Your task to perform on an android device: What's the weather? Image 0: 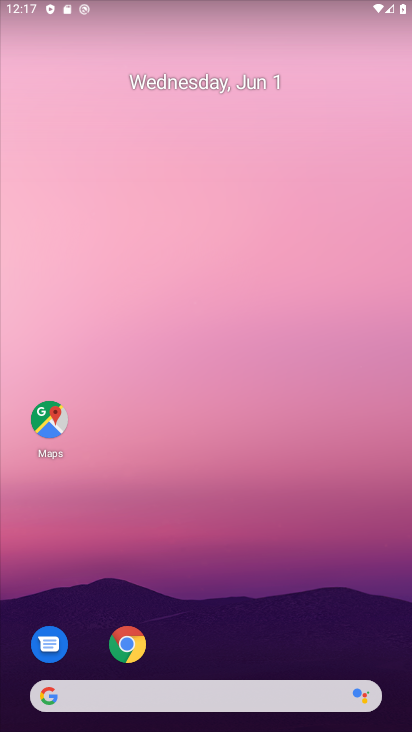
Step 0: press home button
Your task to perform on an android device: What's the weather? Image 1: 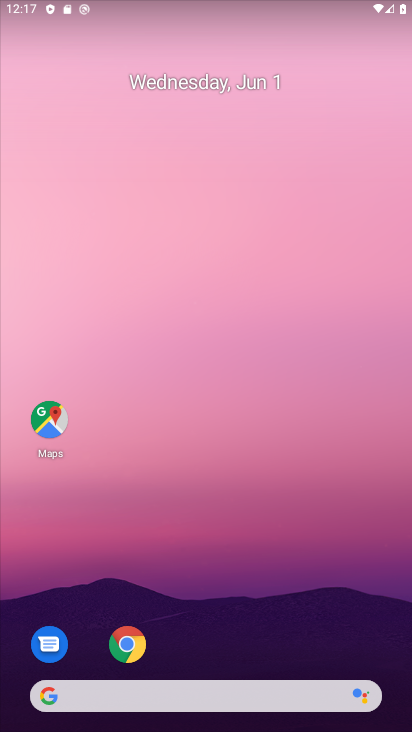
Step 1: click (134, 634)
Your task to perform on an android device: What's the weather? Image 2: 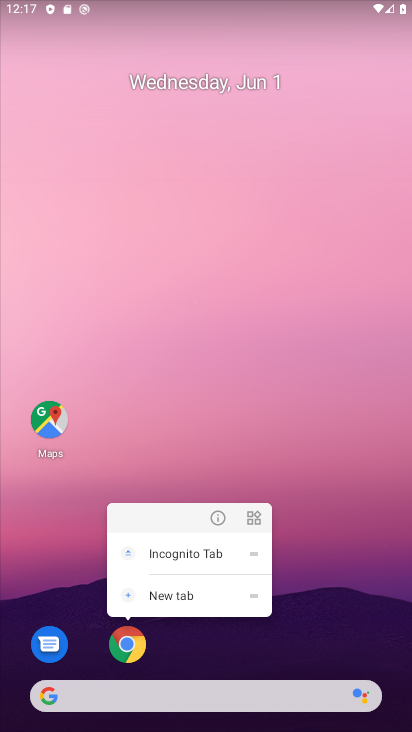
Step 2: click (134, 634)
Your task to perform on an android device: What's the weather? Image 3: 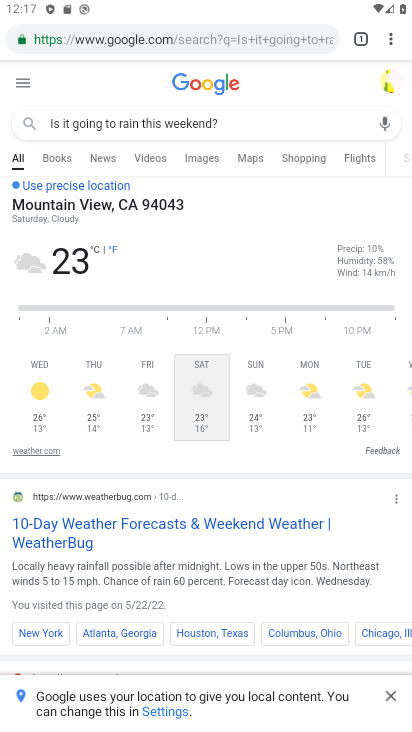
Step 3: click (176, 42)
Your task to perform on an android device: What's the weather? Image 4: 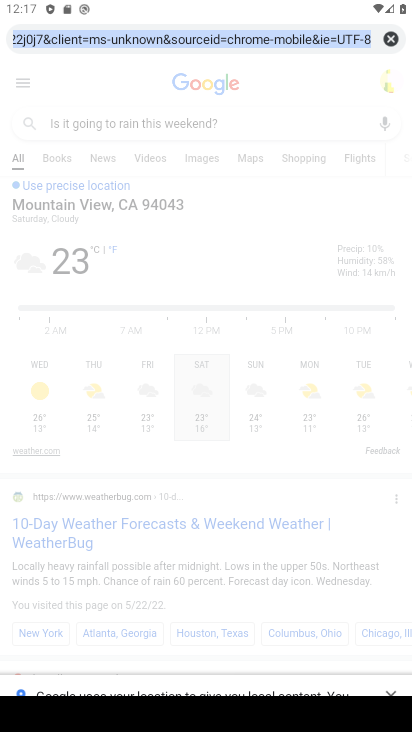
Step 4: click (386, 37)
Your task to perform on an android device: What's the weather? Image 5: 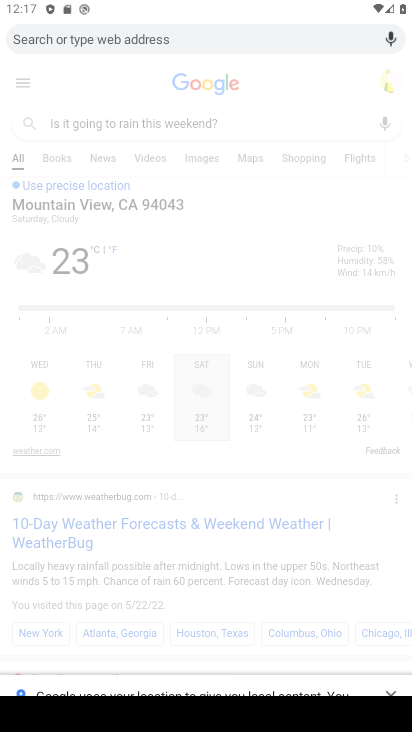
Step 5: type "What's the weather?"
Your task to perform on an android device: What's the weather? Image 6: 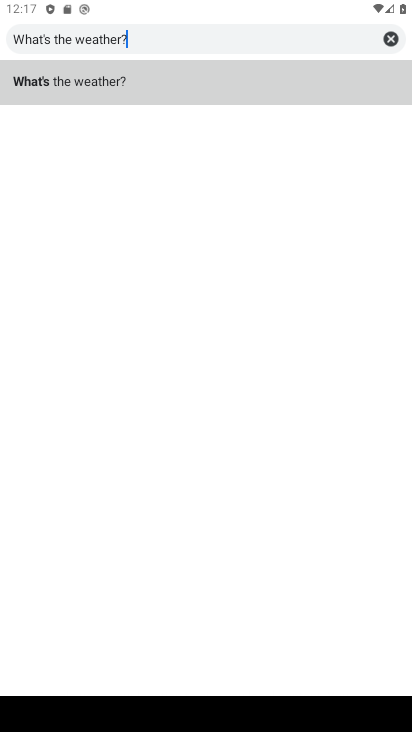
Step 6: type ""
Your task to perform on an android device: What's the weather? Image 7: 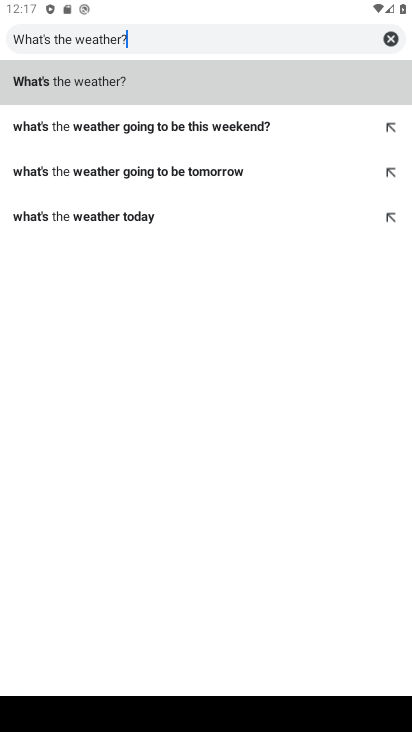
Step 7: click (96, 72)
Your task to perform on an android device: What's the weather? Image 8: 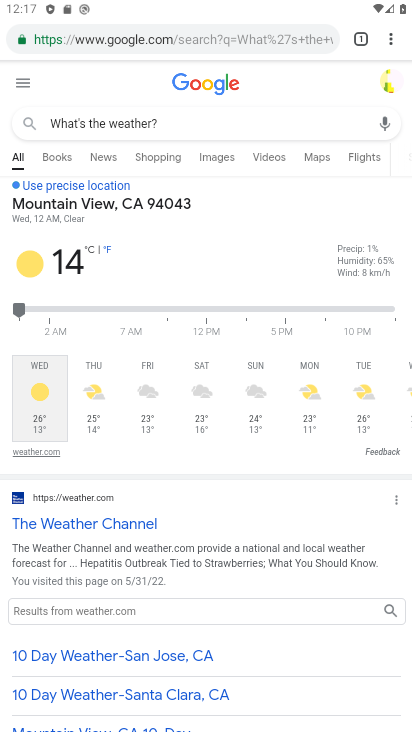
Step 8: task complete